Your task to perform on an android device: toggle translation in the chrome app Image 0: 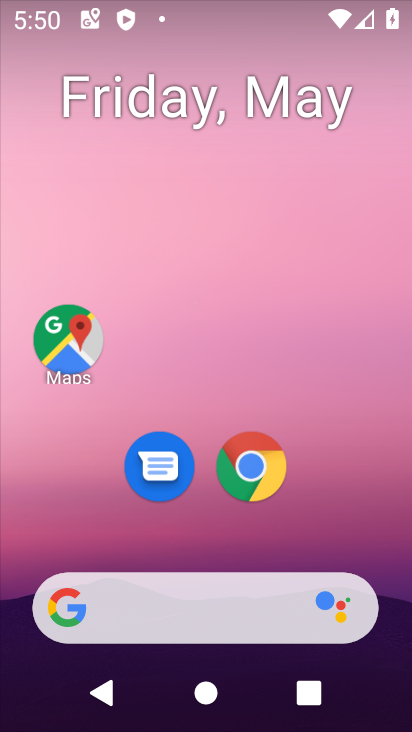
Step 0: drag from (302, 483) to (248, 69)
Your task to perform on an android device: toggle translation in the chrome app Image 1: 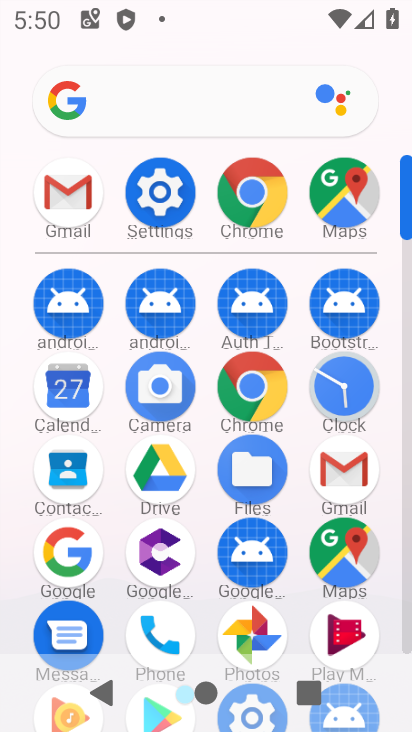
Step 1: drag from (17, 564) to (17, 208)
Your task to perform on an android device: toggle translation in the chrome app Image 2: 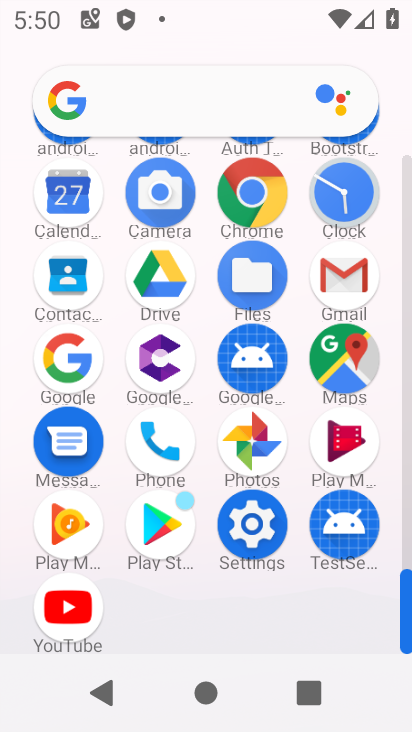
Step 2: click (251, 184)
Your task to perform on an android device: toggle translation in the chrome app Image 3: 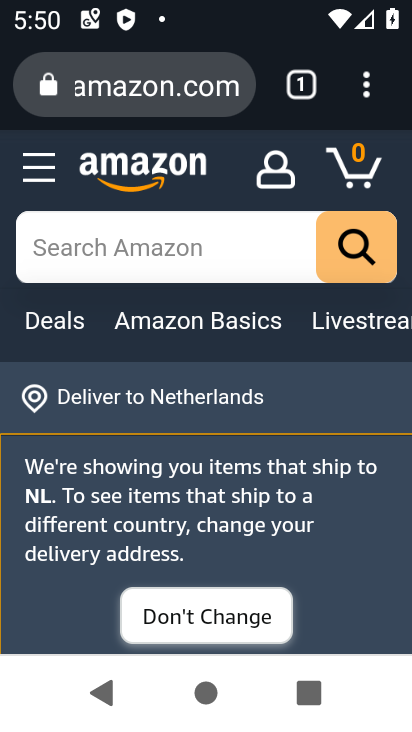
Step 3: drag from (369, 87) to (119, 513)
Your task to perform on an android device: toggle translation in the chrome app Image 4: 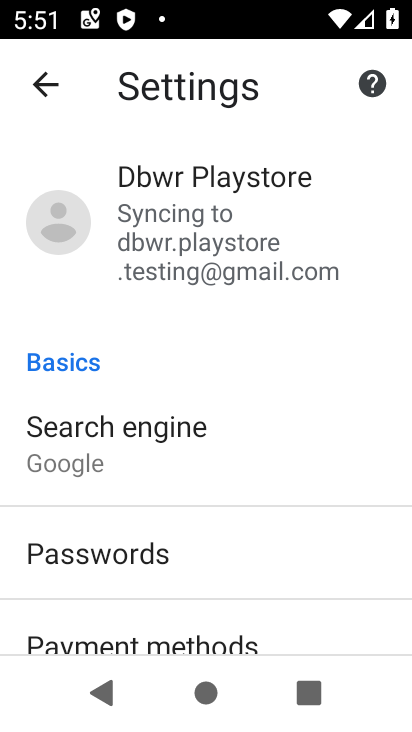
Step 4: drag from (253, 522) to (255, 224)
Your task to perform on an android device: toggle translation in the chrome app Image 5: 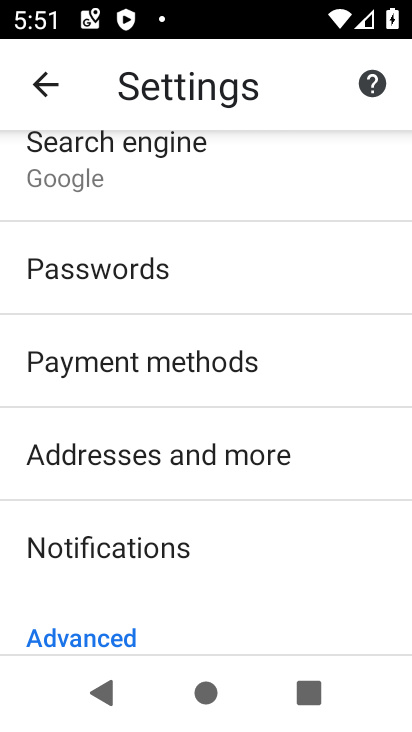
Step 5: drag from (274, 561) to (271, 182)
Your task to perform on an android device: toggle translation in the chrome app Image 6: 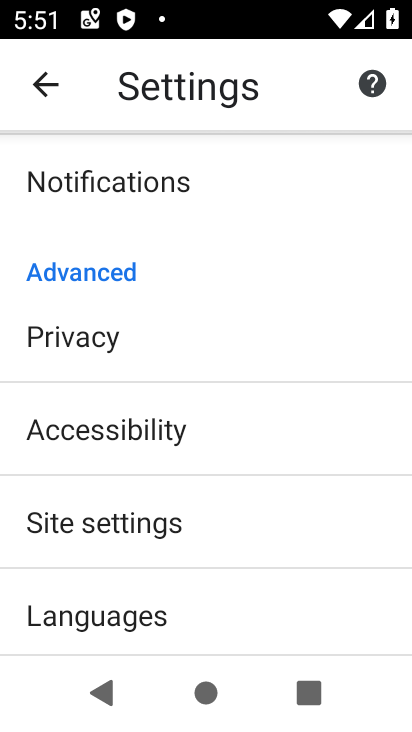
Step 6: drag from (190, 573) to (235, 282)
Your task to perform on an android device: toggle translation in the chrome app Image 7: 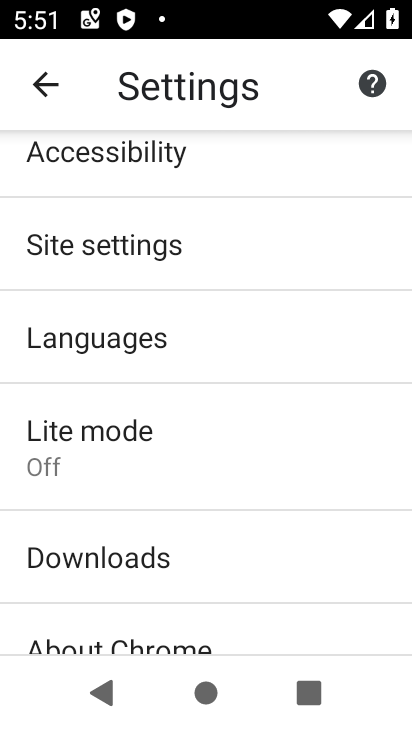
Step 7: click (149, 333)
Your task to perform on an android device: toggle translation in the chrome app Image 8: 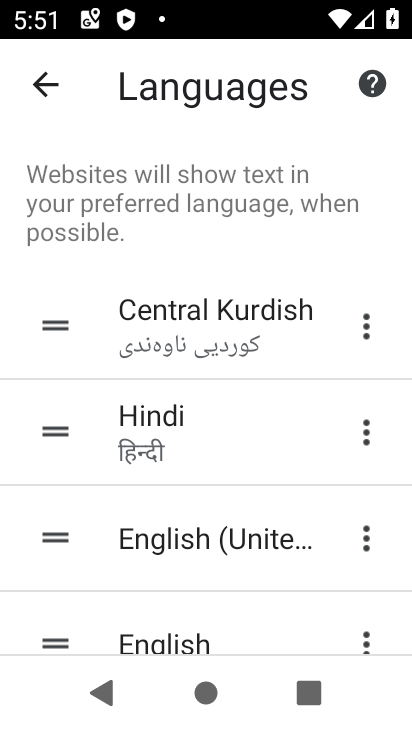
Step 8: drag from (189, 600) to (218, 240)
Your task to perform on an android device: toggle translation in the chrome app Image 9: 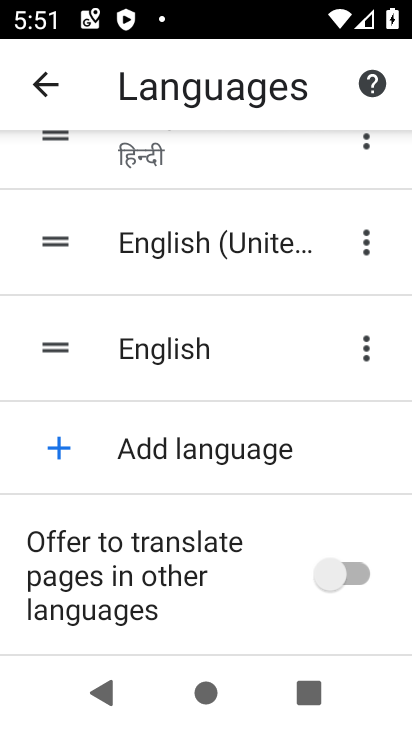
Step 9: click (326, 574)
Your task to perform on an android device: toggle translation in the chrome app Image 10: 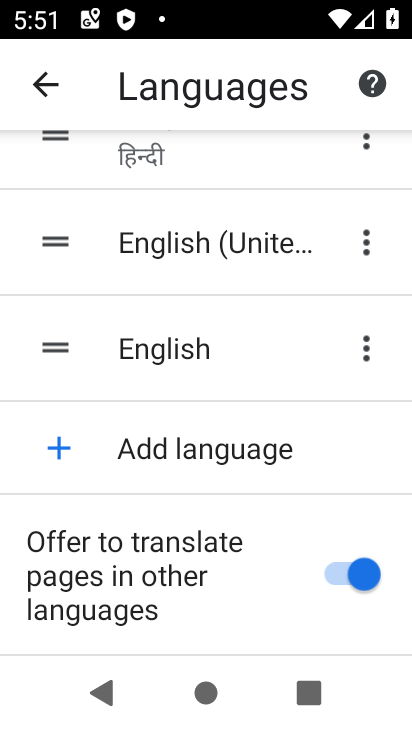
Step 10: task complete